Your task to perform on an android device: Do I have any events today? Image 0: 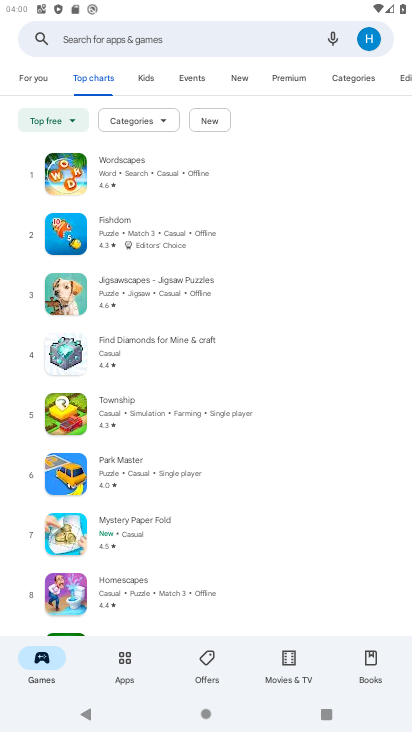
Step 0: press home button
Your task to perform on an android device: Do I have any events today? Image 1: 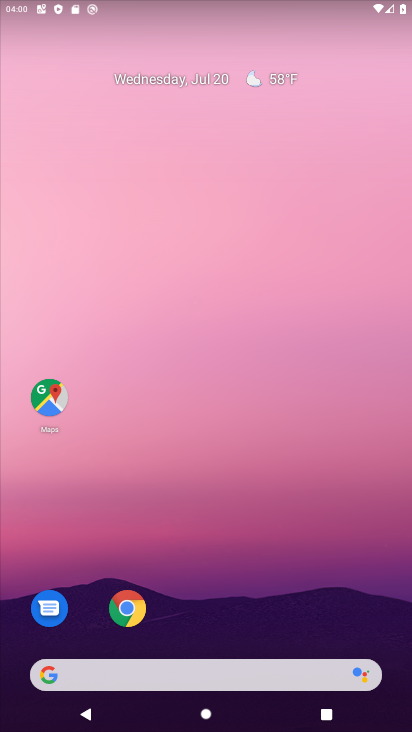
Step 1: drag from (293, 599) to (160, 171)
Your task to perform on an android device: Do I have any events today? Image 2: 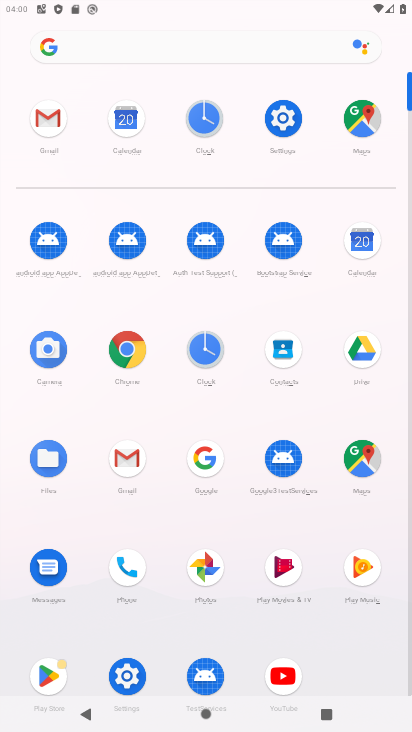
Step 2: click (151, 135)
Your task to perform on an android device: Do I have any events today? Image 3: 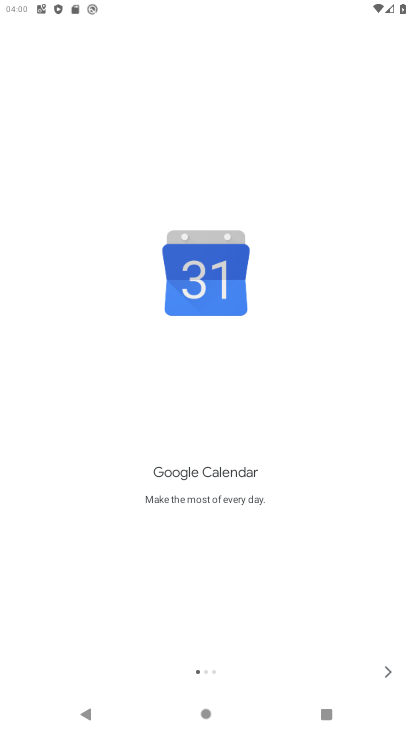
Step 3: click (385, 675)
Your task to perform on an android device: Do I have any events today? Image 4: 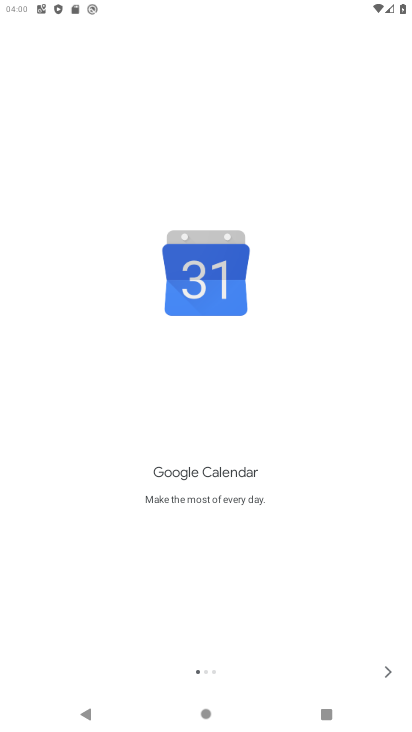
Step 4: click (385, 675)
Your task to perform on an android device: Do I have any events today? Image 5: 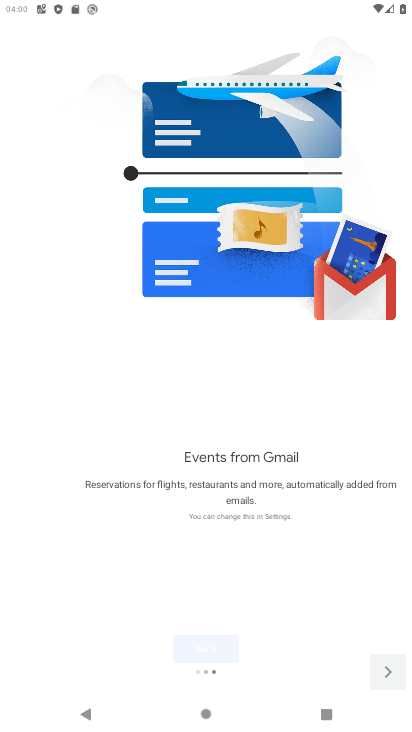
Step 5: click (385, 675)
Your task to perform on an android device: Do I have any events today? Image 6: 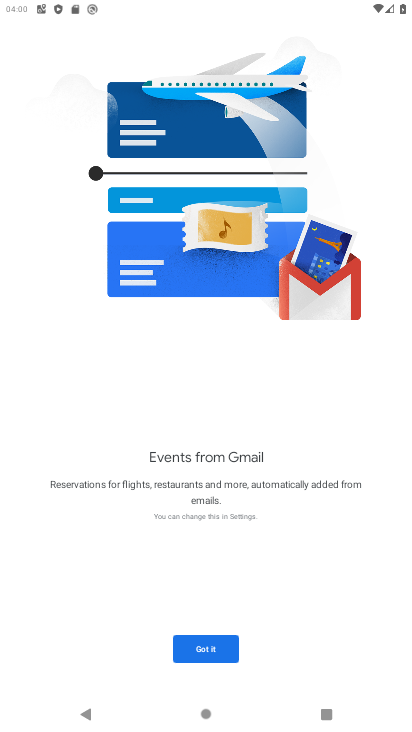
Step 6: click (207, 639)
Your task to perform on an android device: Do I have any events today? Image 7: 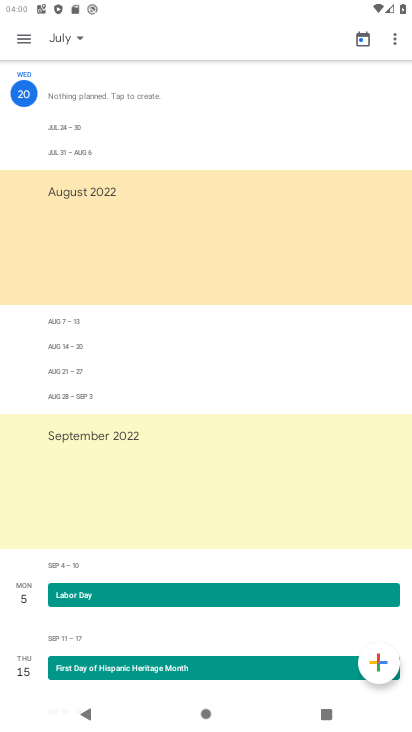
Step 7: task complete